Your task to perform on an android device: Open the Play Movies app and select the watchlist tab. Image 0: 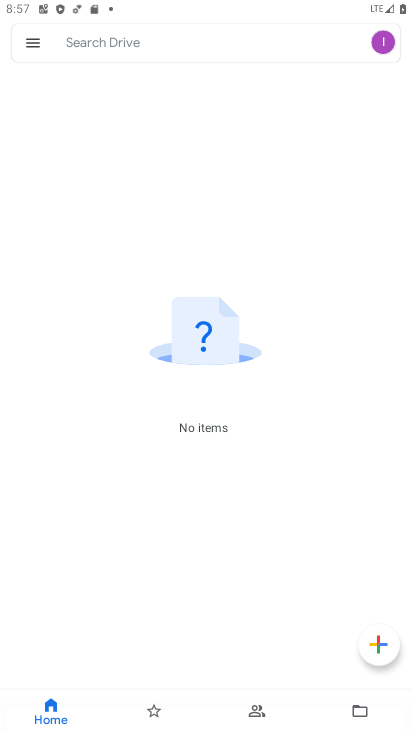
Step 0: press home button
Your task to perform on an android device: Open the Play Movies app and select the watchlist tab. Image 1: 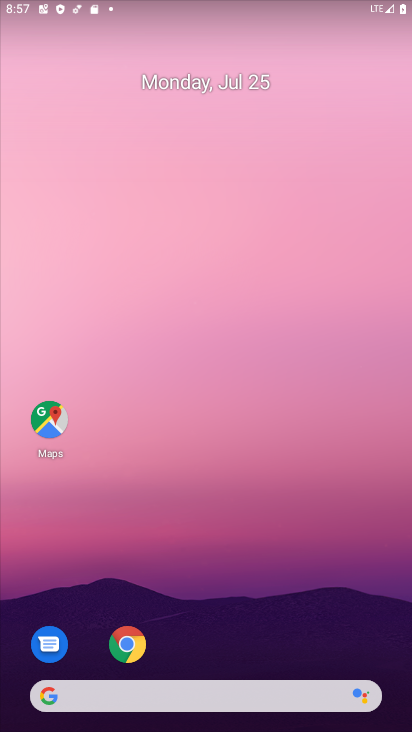
Step 1: drag from (229, 575) to (229, 111)
Your task to perform on an android device: Open the Play Movies app and select the watchlist tab. Image 2: 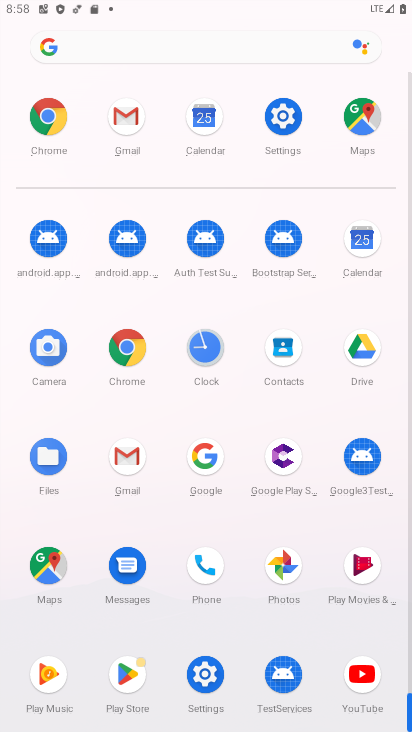
Step 2: click (359, 570)
Your task to perform on an android device: Open the Play Movies app and select the watchlist tab. Image 3: 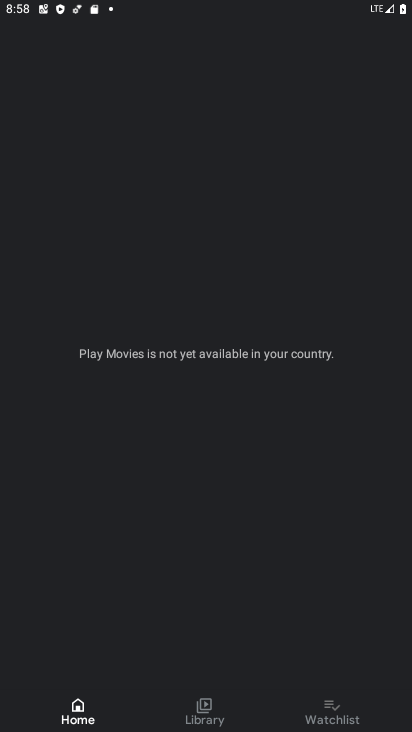
Step 3: click (340, 701)
Your task to perform on an android device: Open the Play Movies app and select the watchlist tab. Image 4: 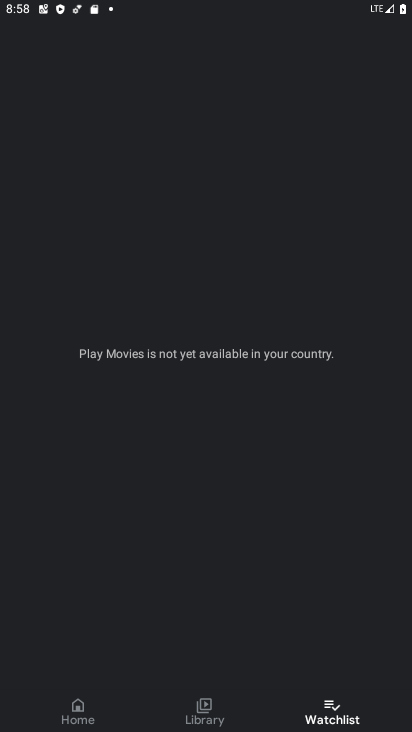
Step 4: task complete